Your task to perform on an android device: turn pop-ups off in chrome Image 0: 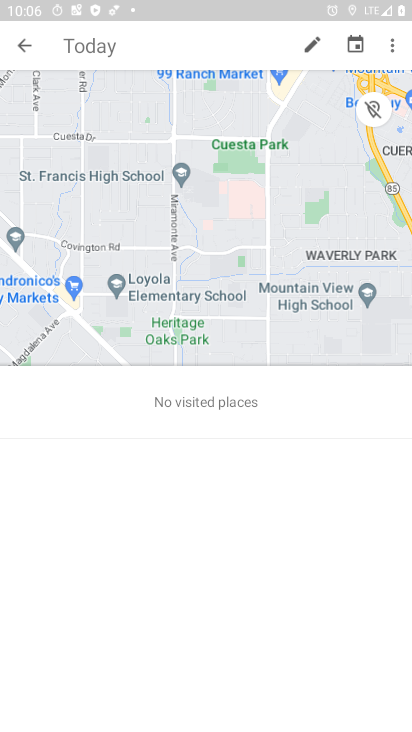
Step 0: press home button
Your task to perform on an android device: turn pop-ups off in chrome Image 1: 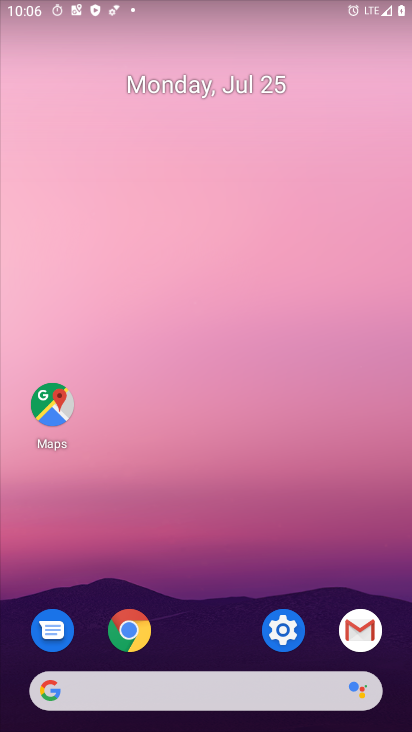
Step 1: click (126, 625)
Your task to perform on an android device: turn pop-ups off in chrome Image 2: 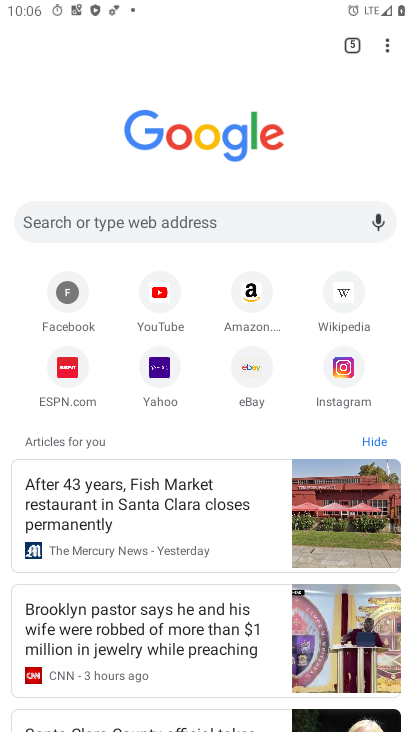
Step 2: click (384, 42)
Your task to perform on an android device: turn pop-ups off in chrome Image 3: 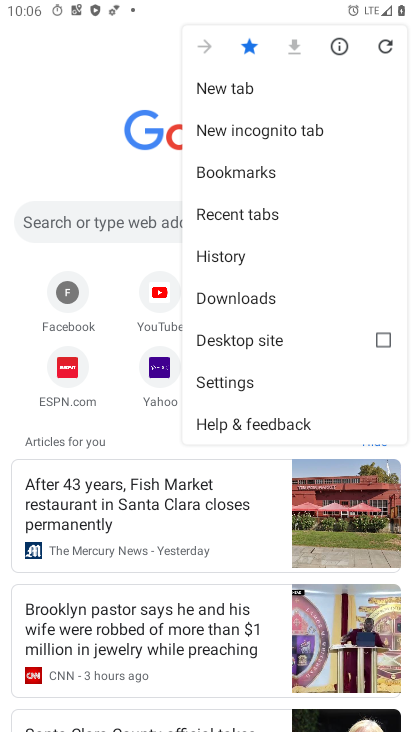
Step 3: click (232, 385)
Your task to perform on an android device: turn pop-ups off in chrome Image 4: 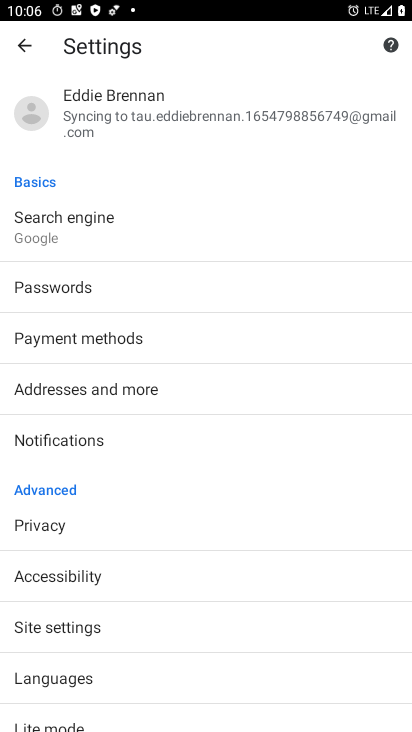
Step 4: click (103, 612)
Your task to perform on an android device: turn pop-ups off in chrome Image 5: 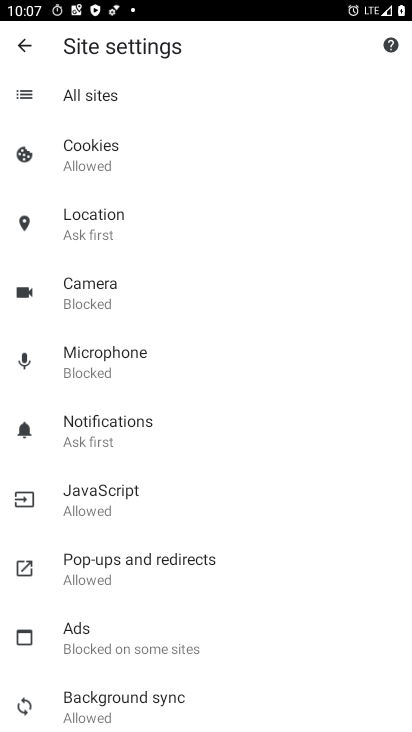
Step 5: click (134, 574)
Your task to perform on an android device: turn pop-ups off in chrome Image 6: 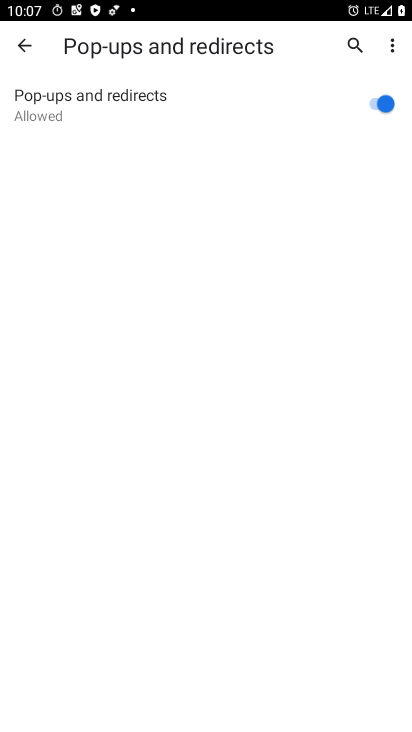
Step 6: click (379, 106)
Your task to perform on an android device: turn pop-ups off in chrome Image 7: 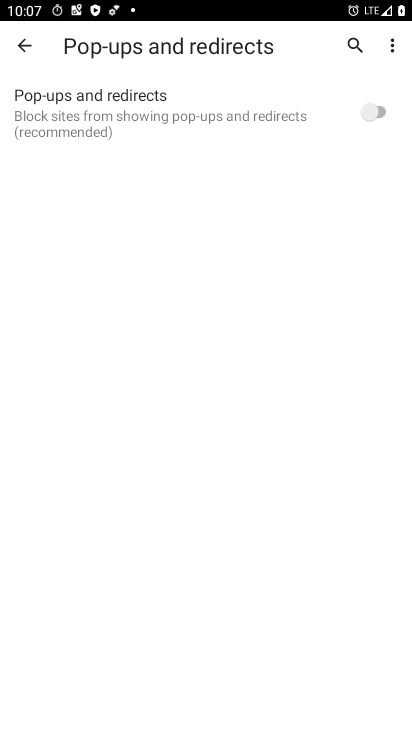
Step 7: task complete